Your task to perform on an android device: Open the web browser Image 0: 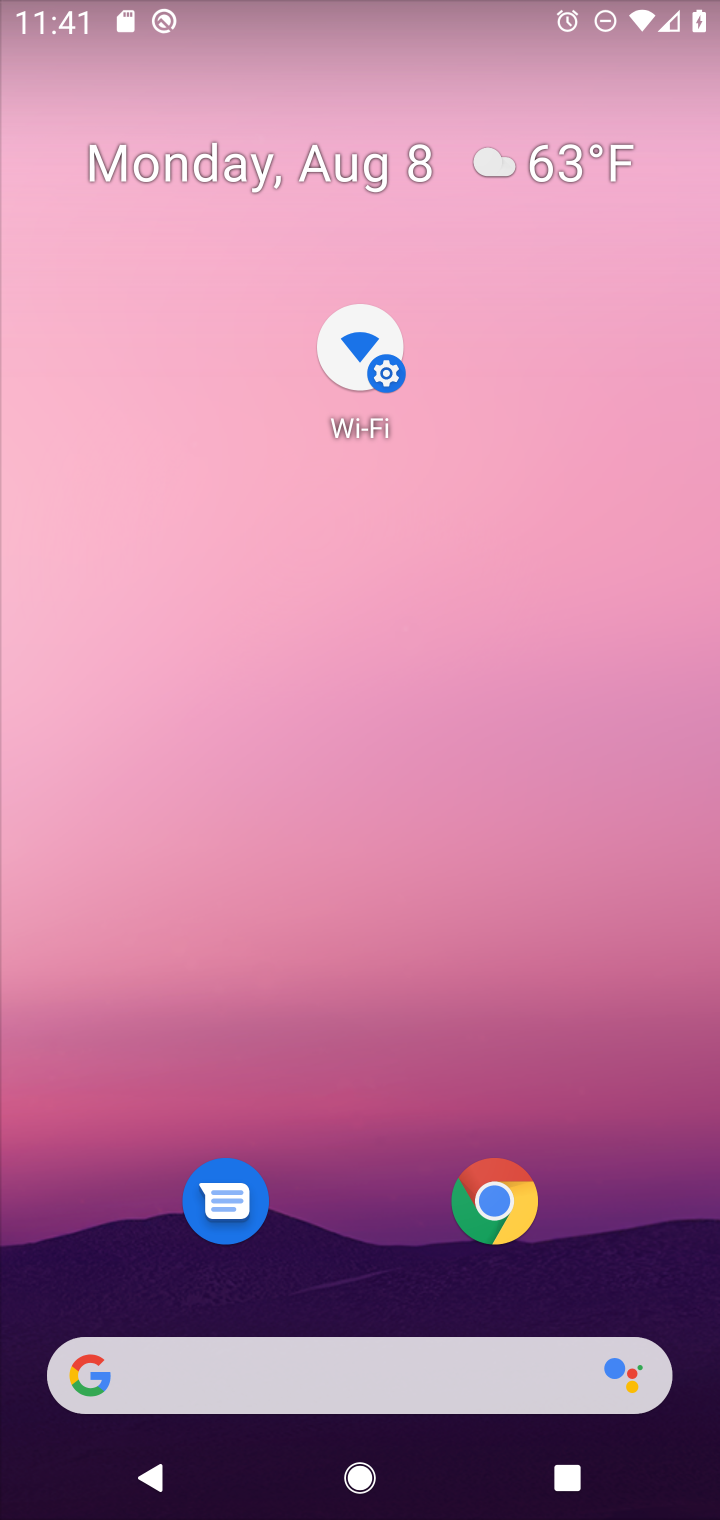
Step 0: press home button
Your task to perform on an android device: Open the web browser Image 1: 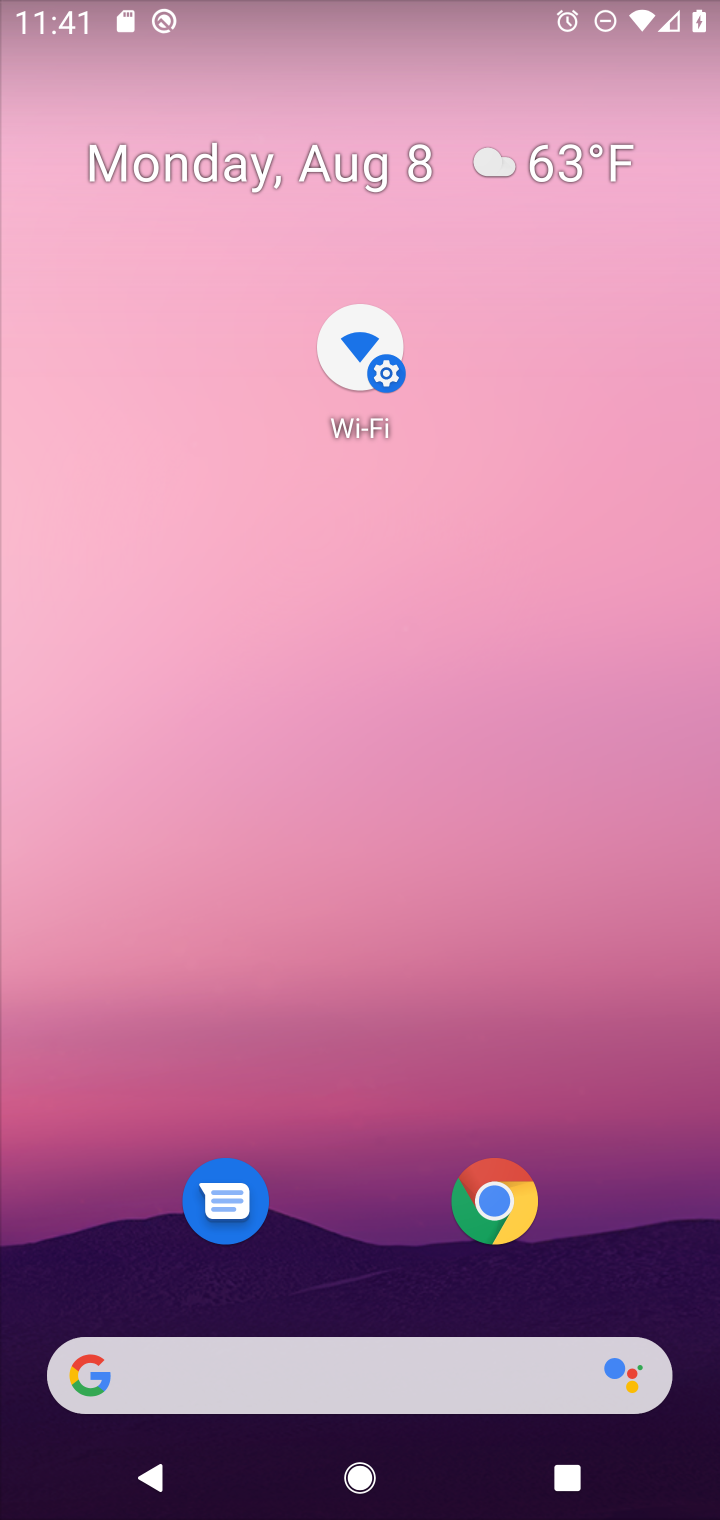
Step 1: drag from (475, 562) to (512, 296)
Your task to perform on an android device: Open the web browser Image 2: 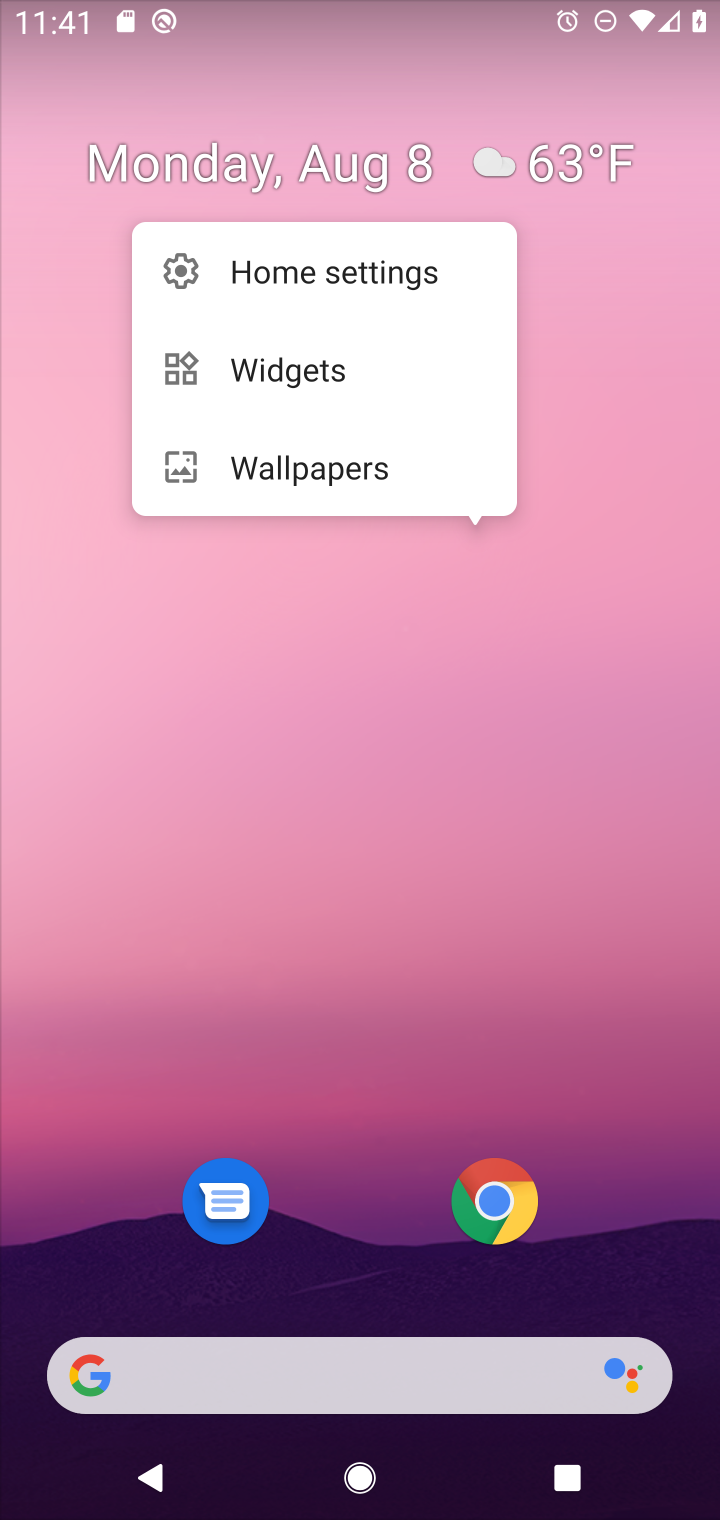
Step 2: click (545, 767)
Your task to perform on an android device: Open the web browser Image 3: 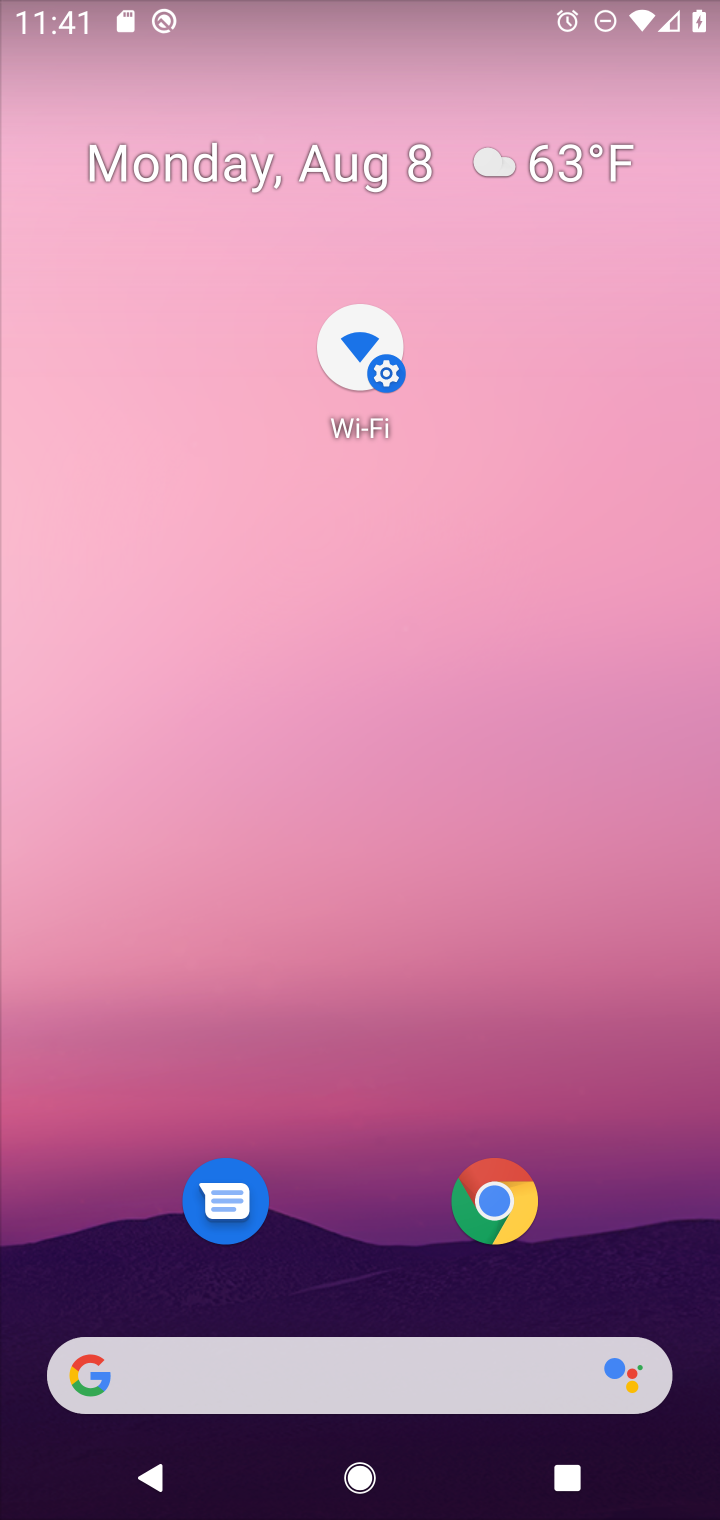
Step 3: drag from (354, 1239) to (476, 222)
Your task to perform on an android device: Open the web browser Image 4: 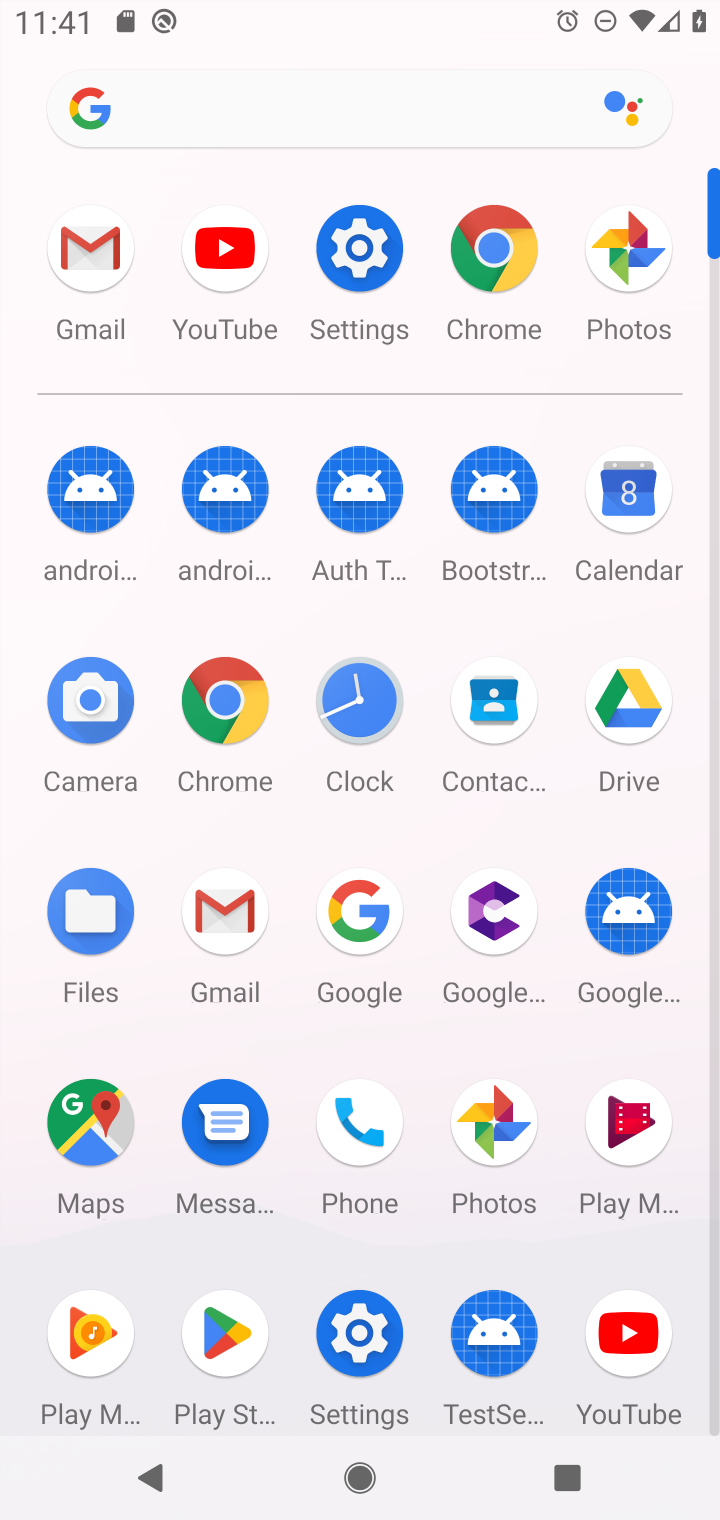
Step 4: click (209, 708)
Your task to perform on an android device: Open the web browser Image 5: 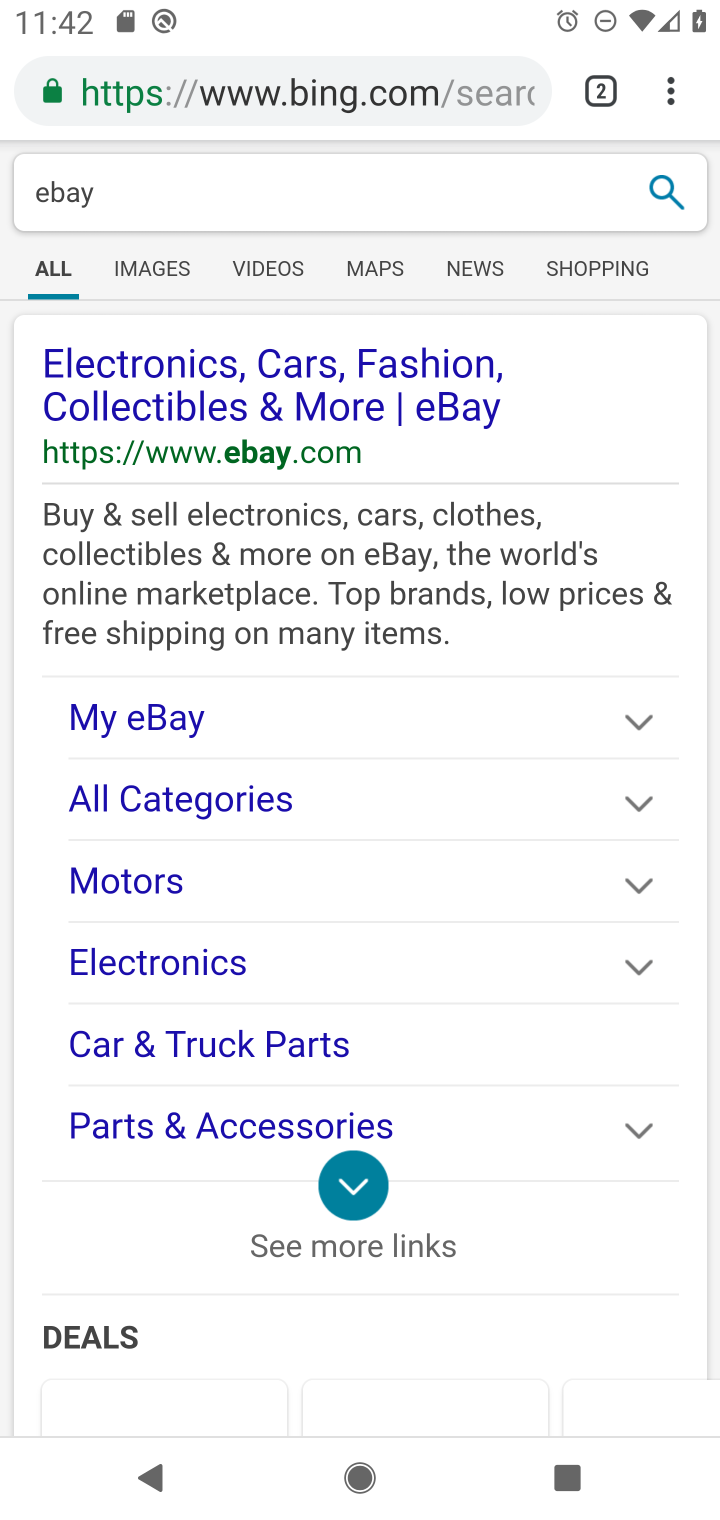
Step 5: task complete